Your task to perform on an android device: find which apps use the phone's location Image 0: 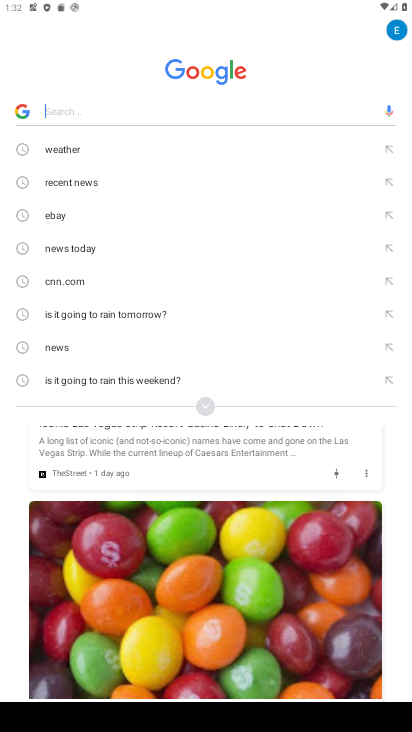
Step 0: press home button
Your task to perform on an android device: find which apps use the phone's location Image 1: 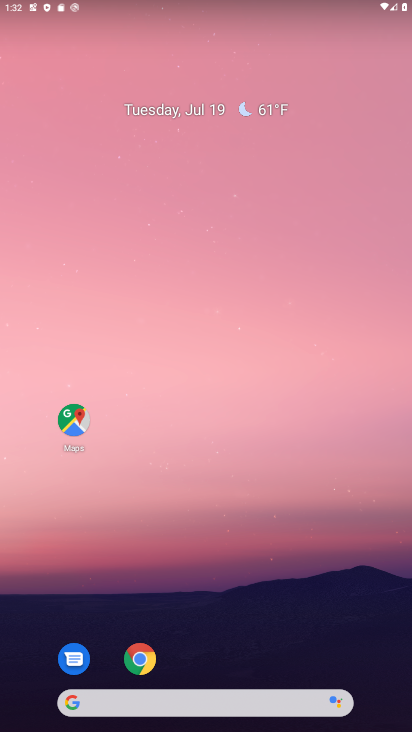
Step 1: drag from (225, 579) to (216, 31)
Your task to perform on an android device: find which apps use the phone's location Image 2: 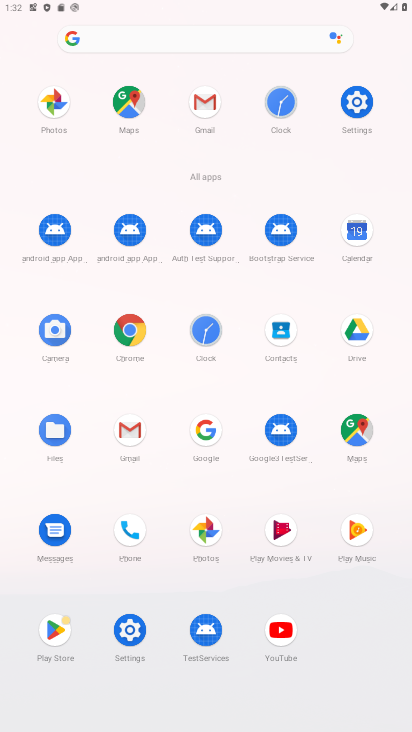
Step 2: drag from (160, 487) to (151, 365)
Your task to perform on an android device: find which apps use the phone's location Image 3: 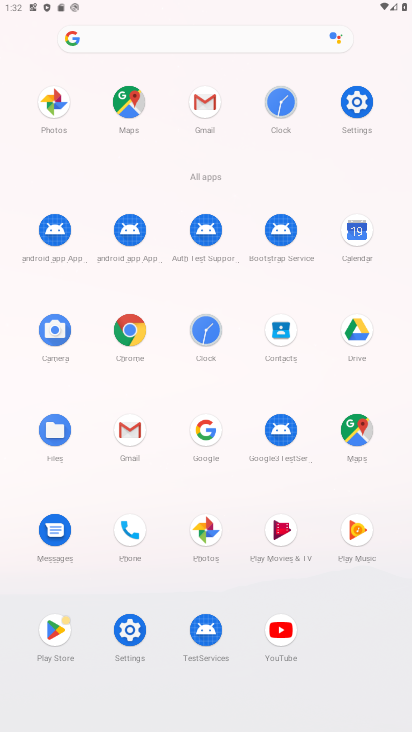
Step 3: click (137, 637)
Your task to perform on an android device: find which apps use the phone's location Image 4: 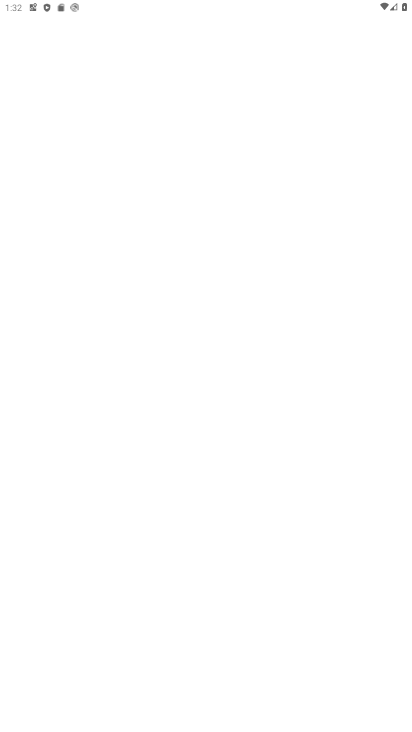
Step 4: click (137, 637)
Your task to perform on an android device: find which apps use the phone's location Image 5: 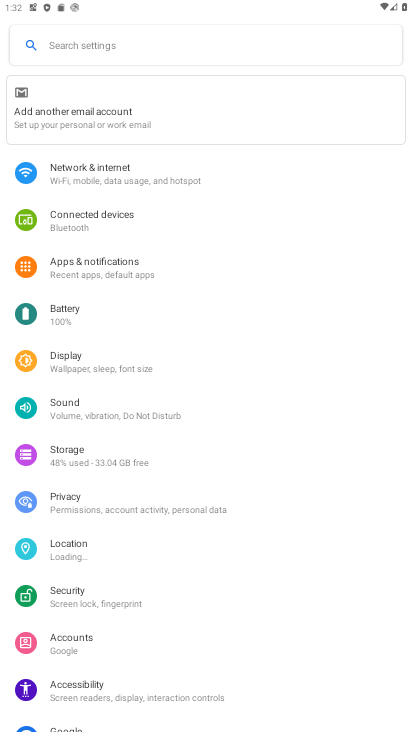
Step 5: click (69, 544)
Your task to perform on an android device: find which apps use the phone's location Image 6: 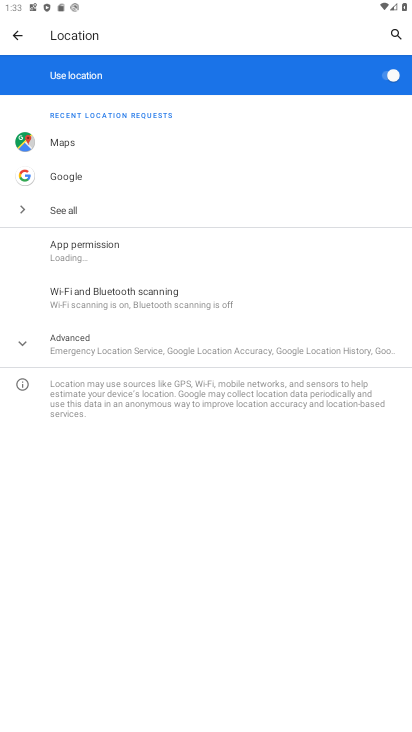
Step 6: click (75, 258)
Your task to perform on an android device: find which apps use the phone's location Image 7: 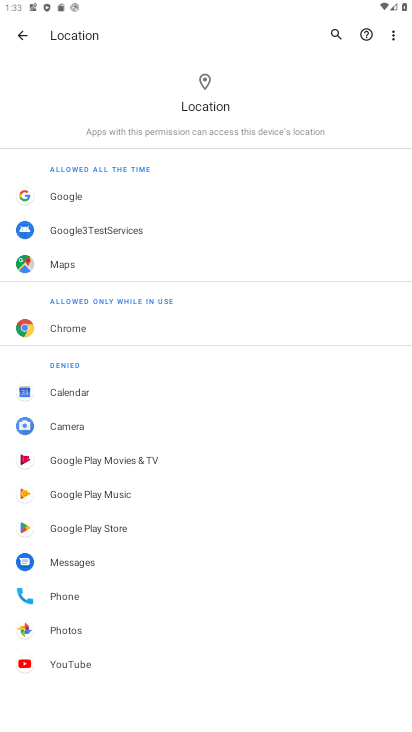
Step 7: task complete